Your task to perform on an android device: Go to wifi settings Image 0: 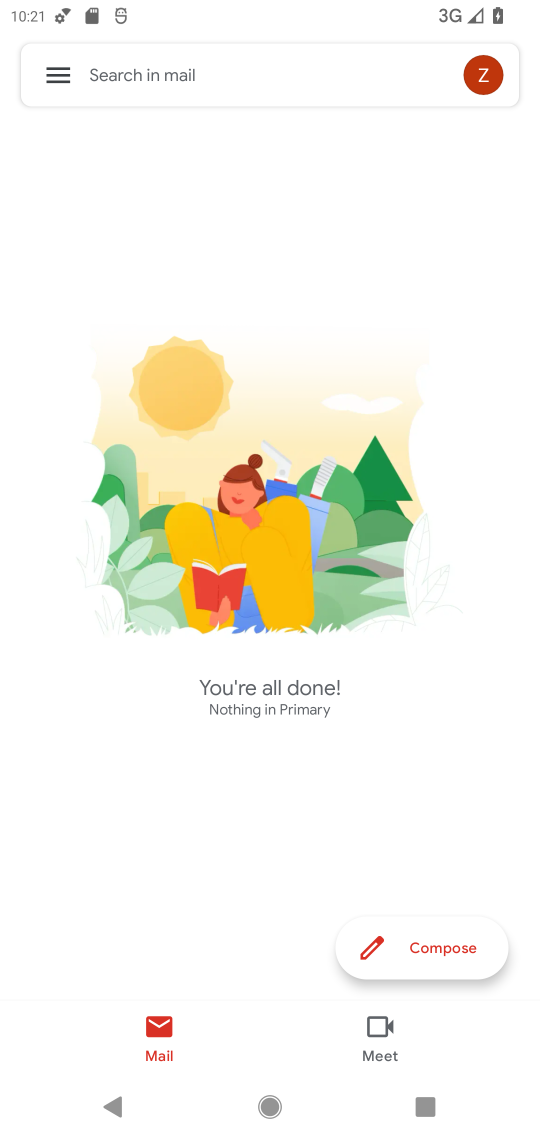
Step 0: drag from (323, 5) to (369, 898)
Your task to perform on an android device: Go to wifi settings Image 1: 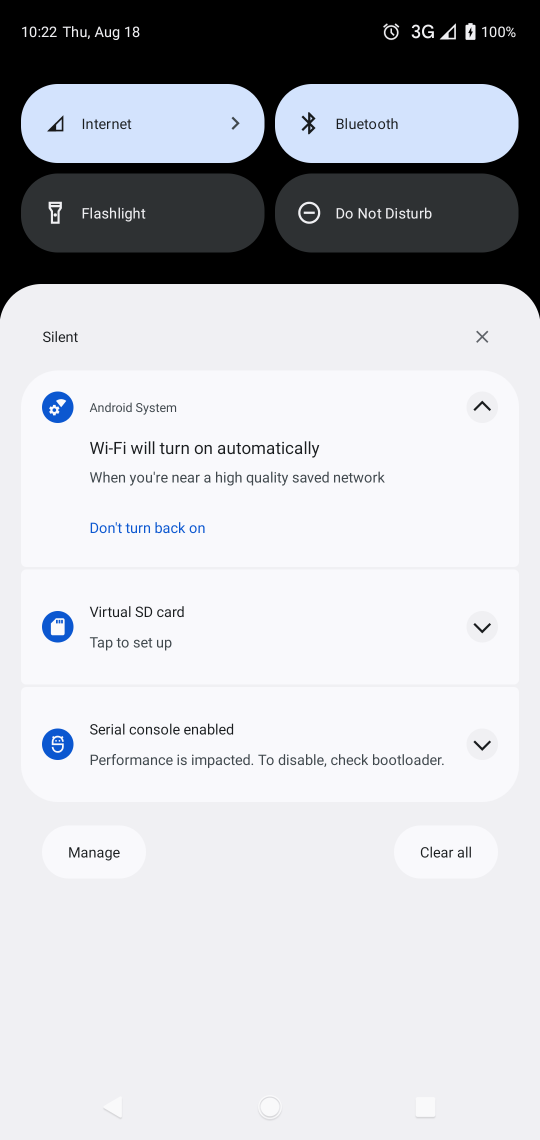
Step 1: click (235, 121)
Your task to perform on an android device: Go to wifi settings Image 2: 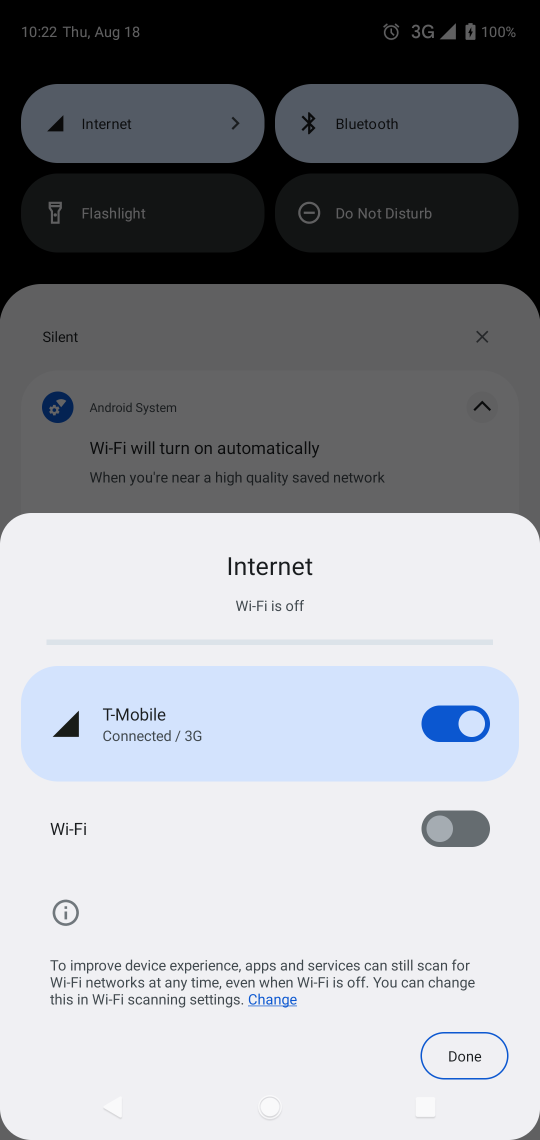
Step 2: click (270, 825)
Your task to perform on an android device: Go to wifi settings Image 3: 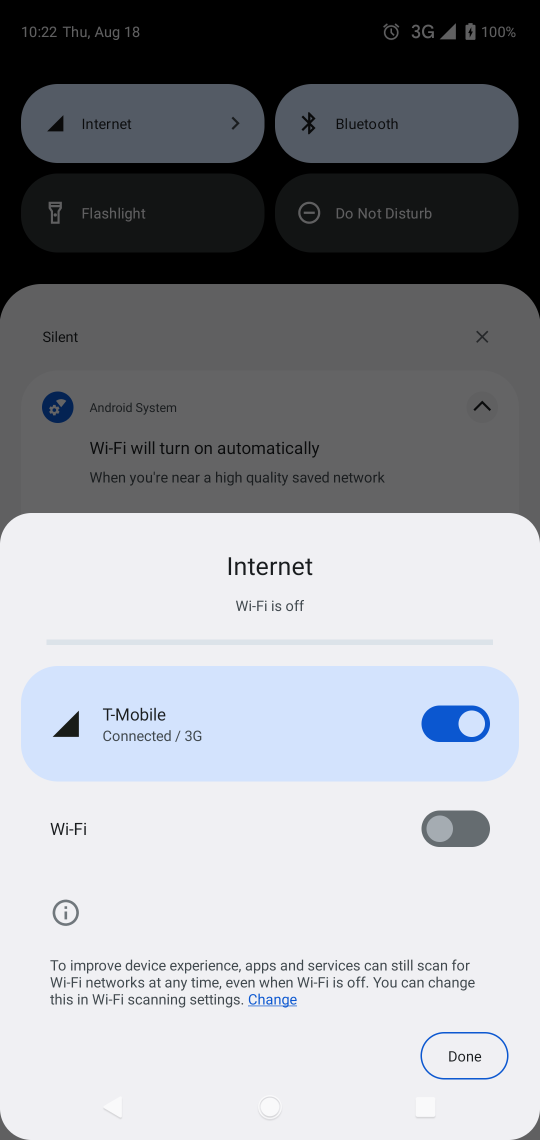
Step 3: click (270, 825)
Your task to perform on an android device: Go to wifi settings Image 4: 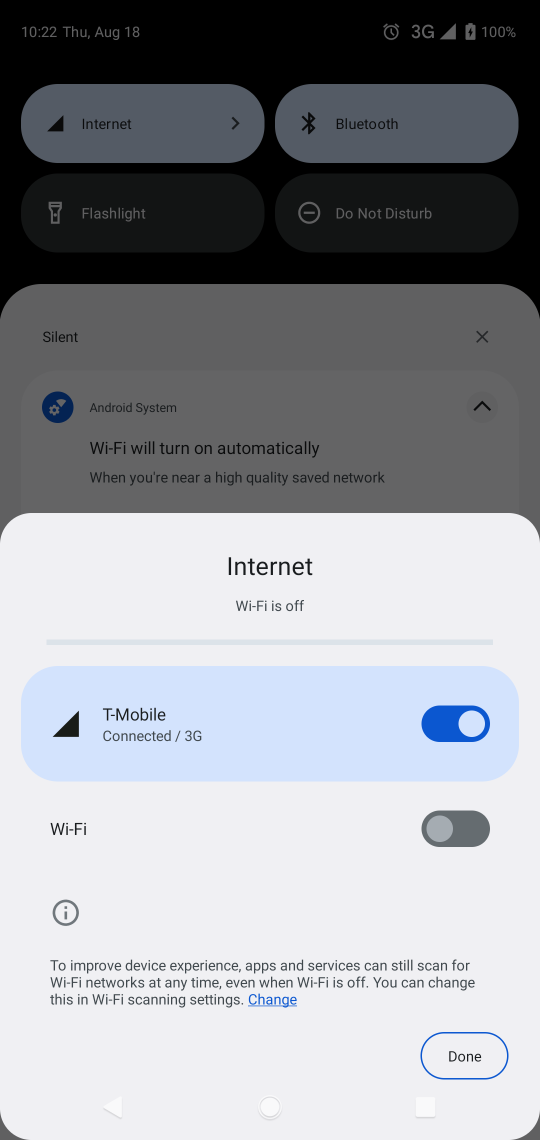
Step 4: click (270, 825)
Your task to perform on an android device: Go to wifi settings Image 5: 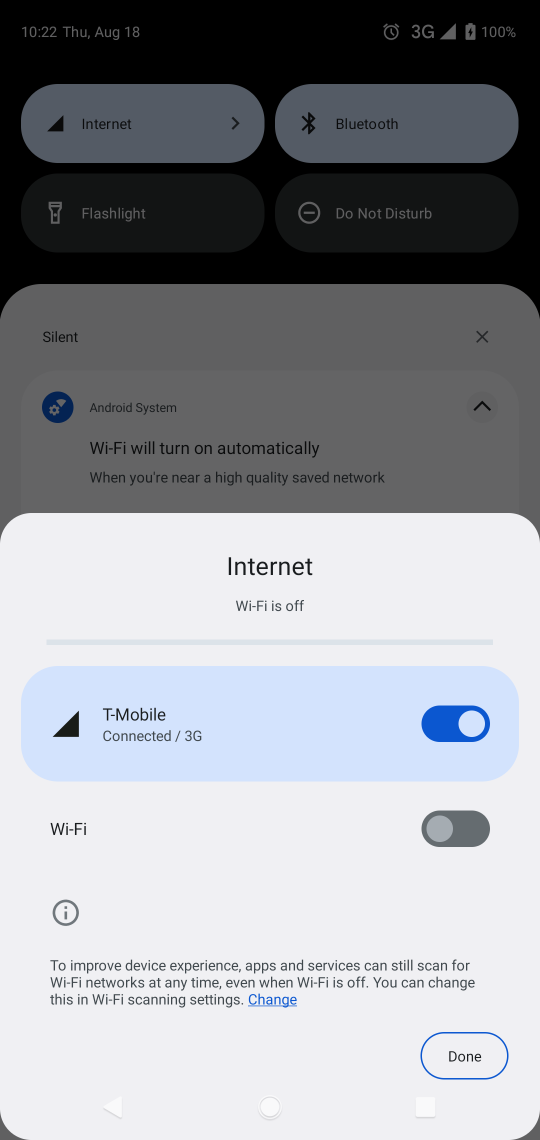
Step 5: click (266, 829)
Your task to perform on an android device: Go to wifi settings Image 6: 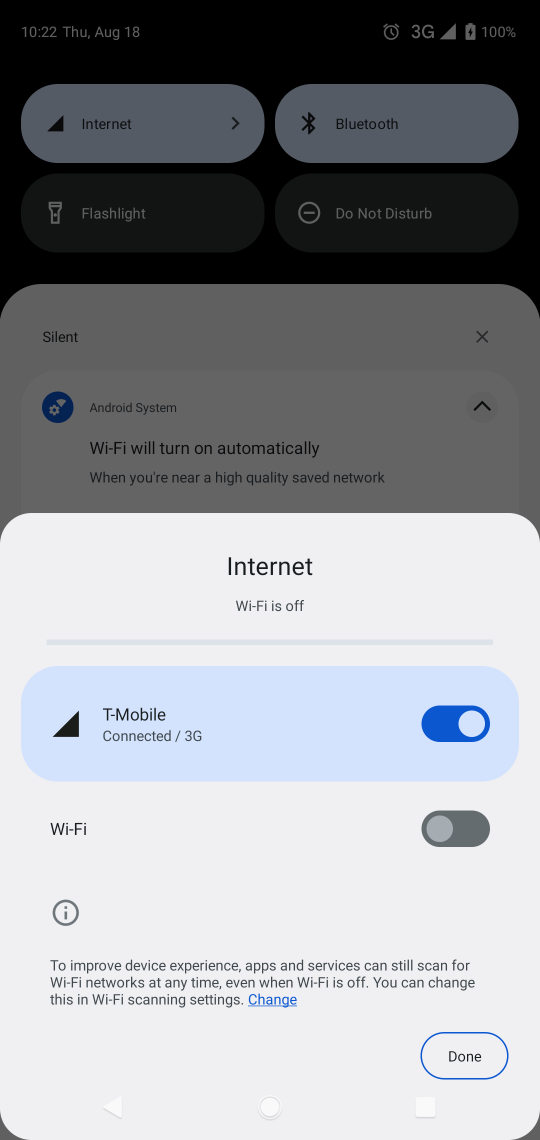
Step 6: click (268, 829)
Your task to perform on an android device: Go to wifi settings Image 7: 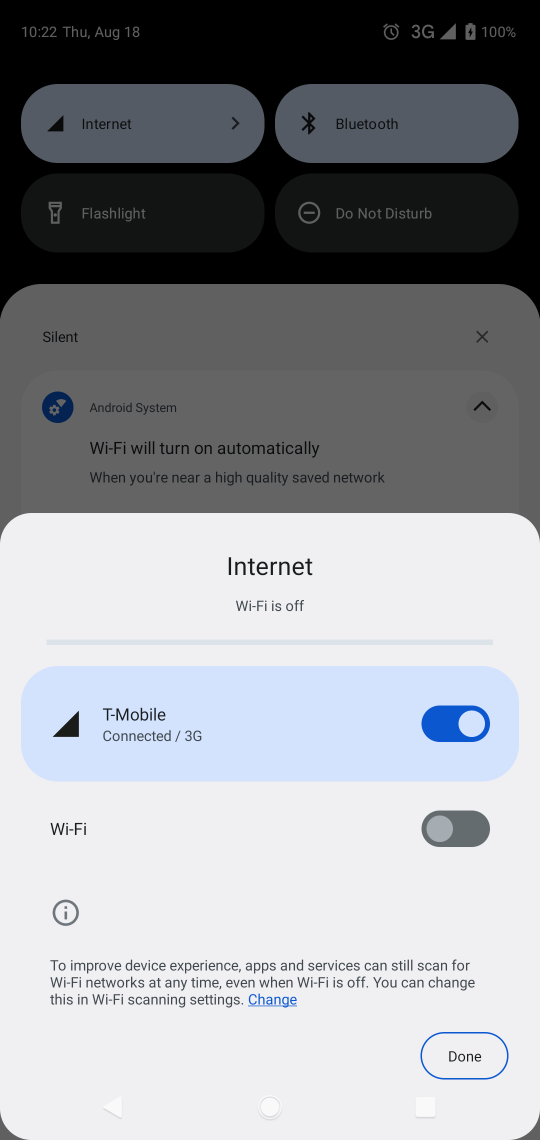
Step 7: click (271, 846)
Your task to perform on an android device: Go to wifi settings Image 8: 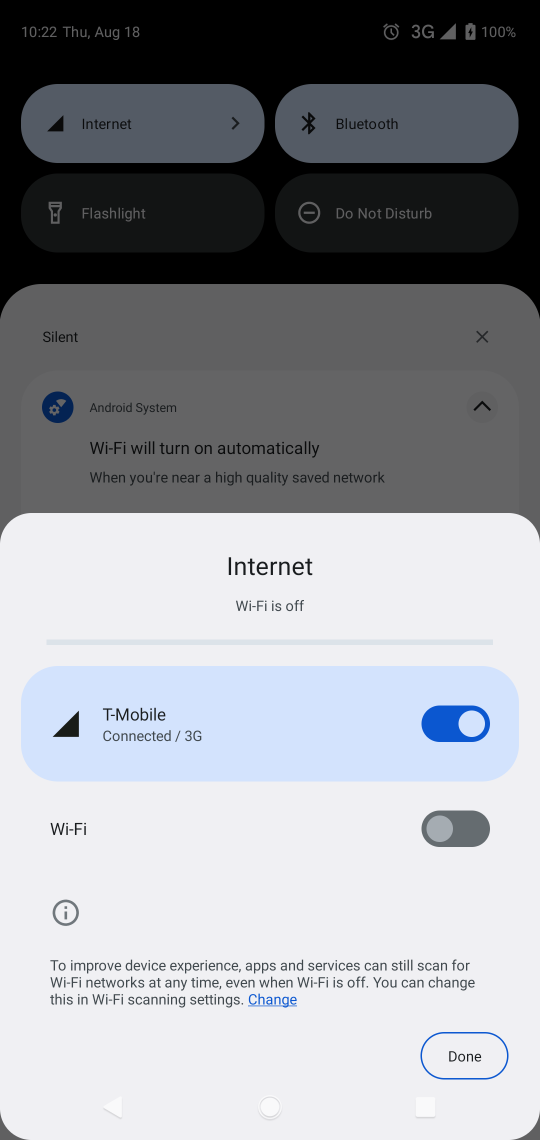
Step 8: click (271, 846)
Your task to perform on an android device: Go to wifi settings Image 9: 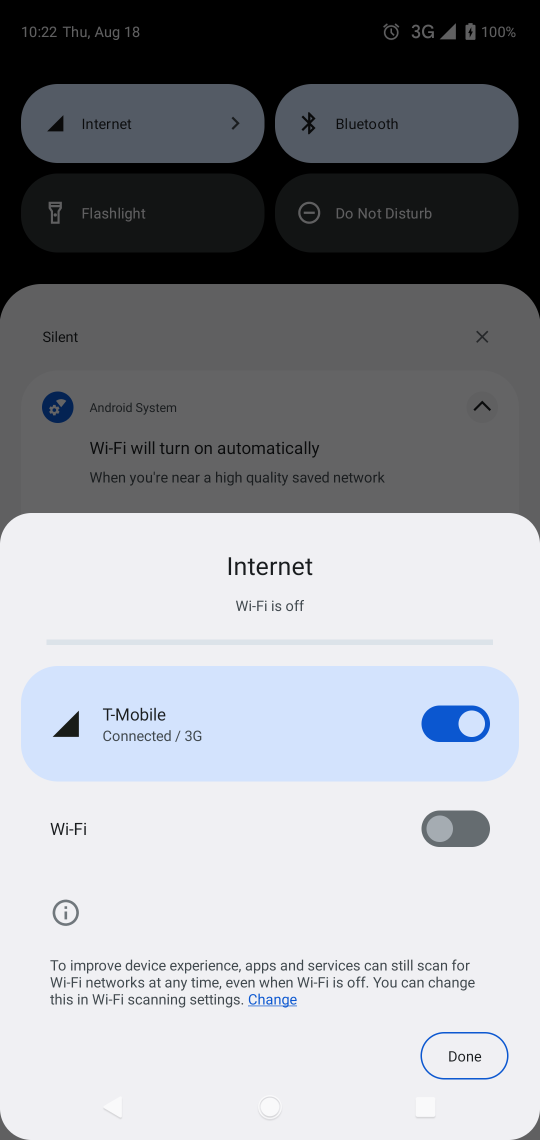
Step 9: click (271, 846)
Your task to perform on an android device: Go to wifi settings Image 10: 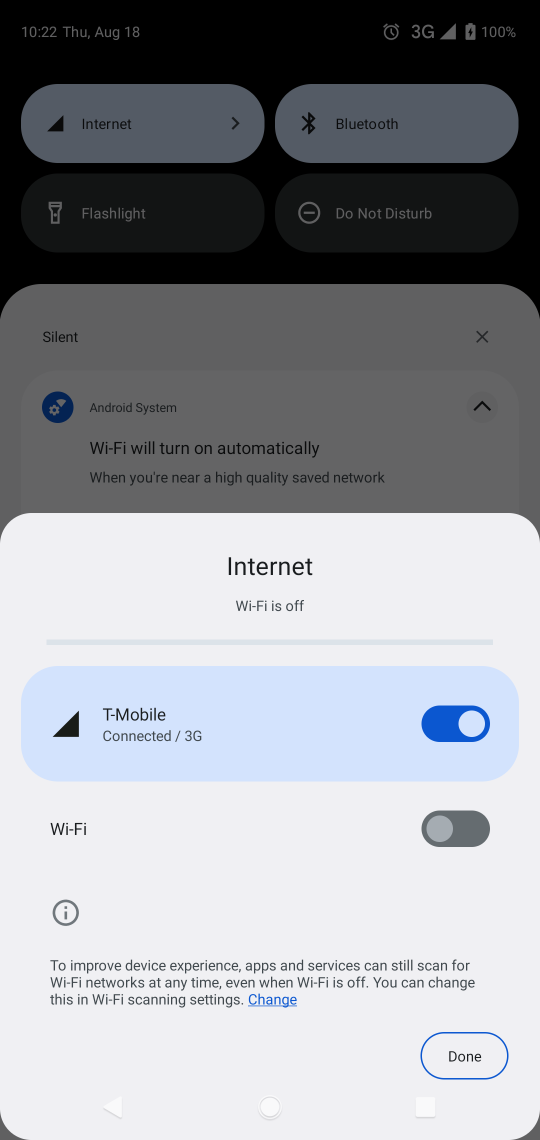
Step 10: click (239, 823)
Your task to perform on an android device: Go to wifi settings Image 11: 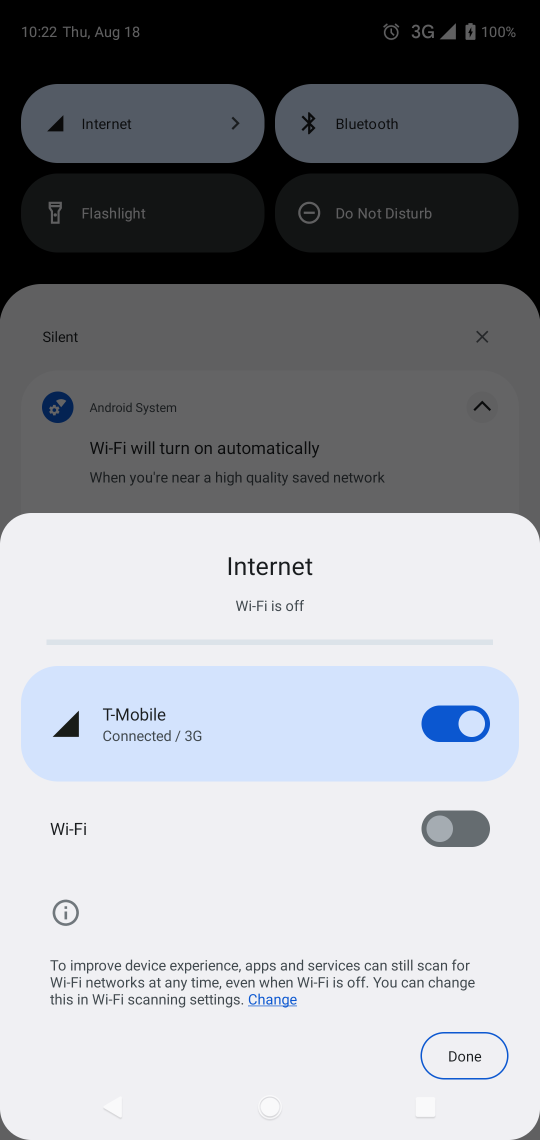
Step 11: click (239, 823)
Your task to perform on an android device: Go to wifi settings Image 12: 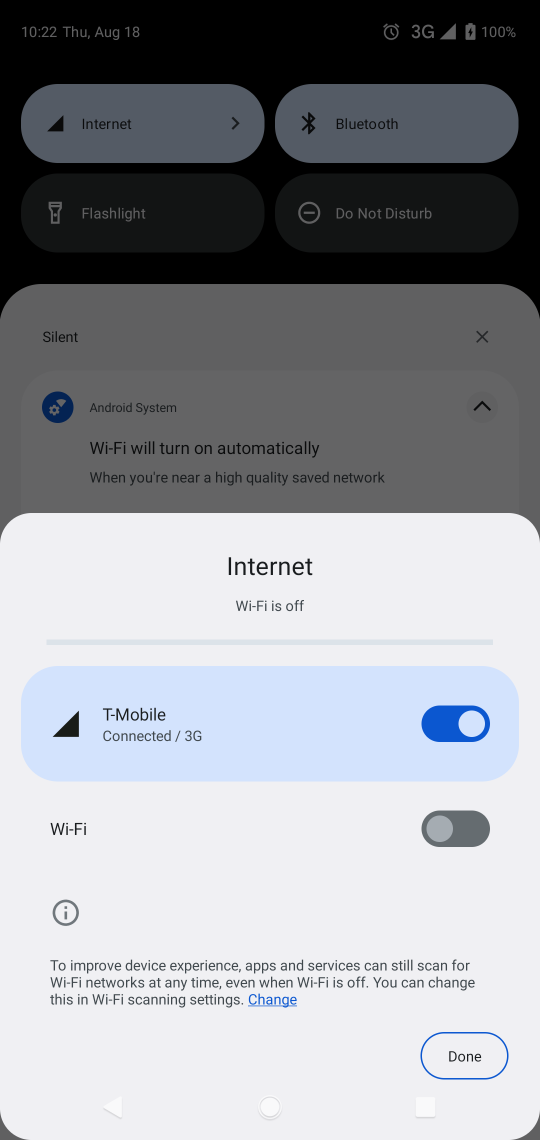
Step 12: click (239, 823)
Your task to perform on an android device: Go to wifi settings Image 13: 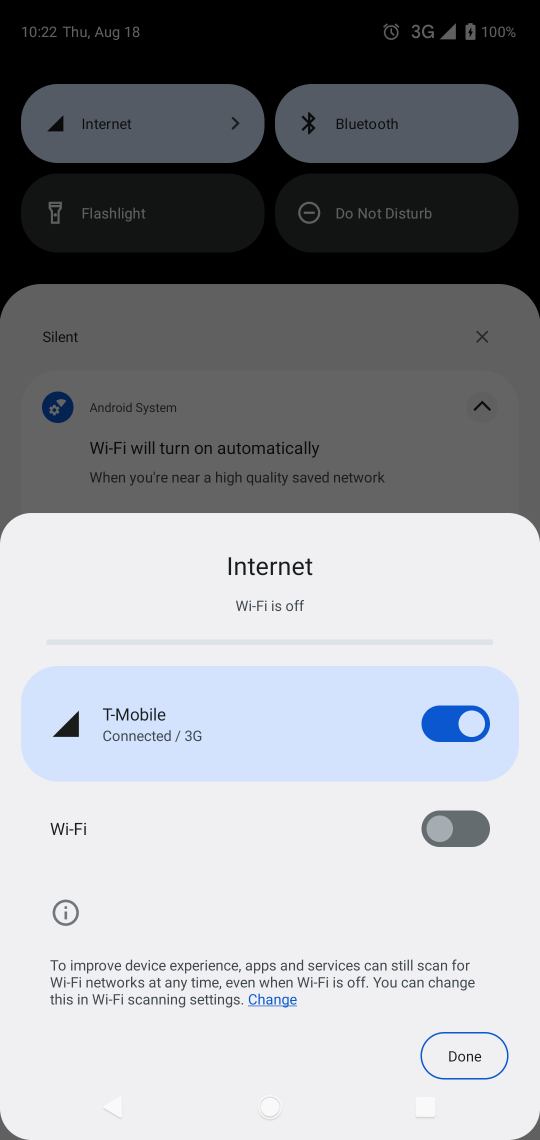
Step 13: click (232, 736)
Your task to perform on an android device: Go to wifi settings Image 14: 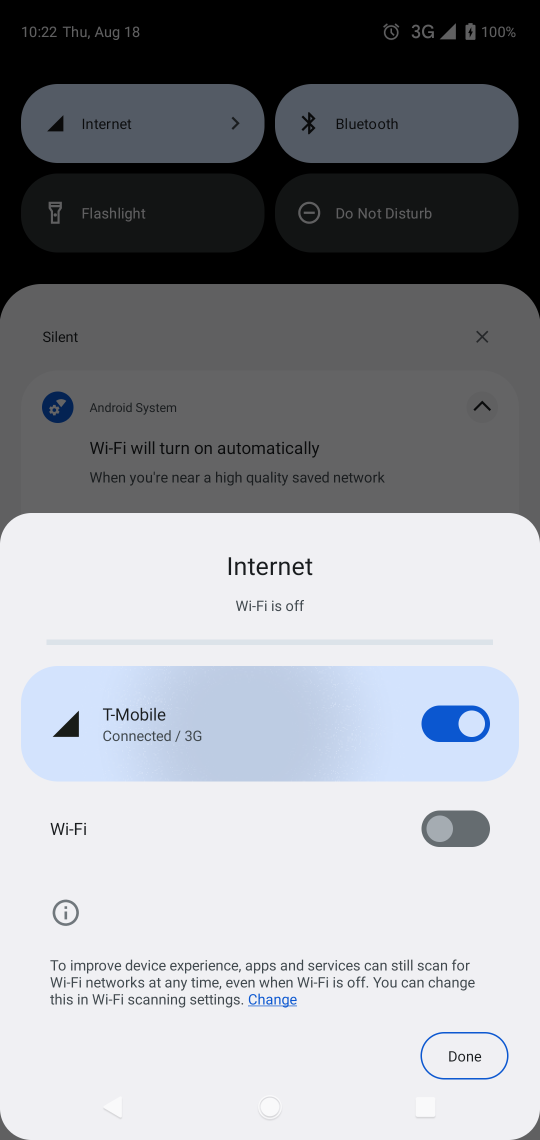
Step 14: click (232, 736)
Your task to perform on an android device: Go to wifi settings Image 15: 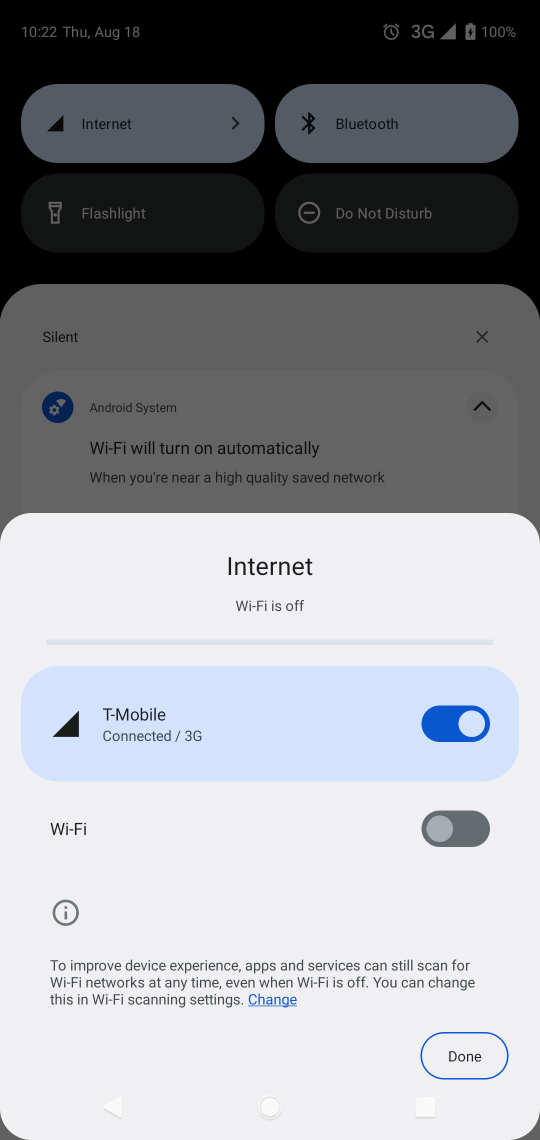
Step 15: click (232, 736)
Your task to perform on an android device: Go to wifi settings Image 16: 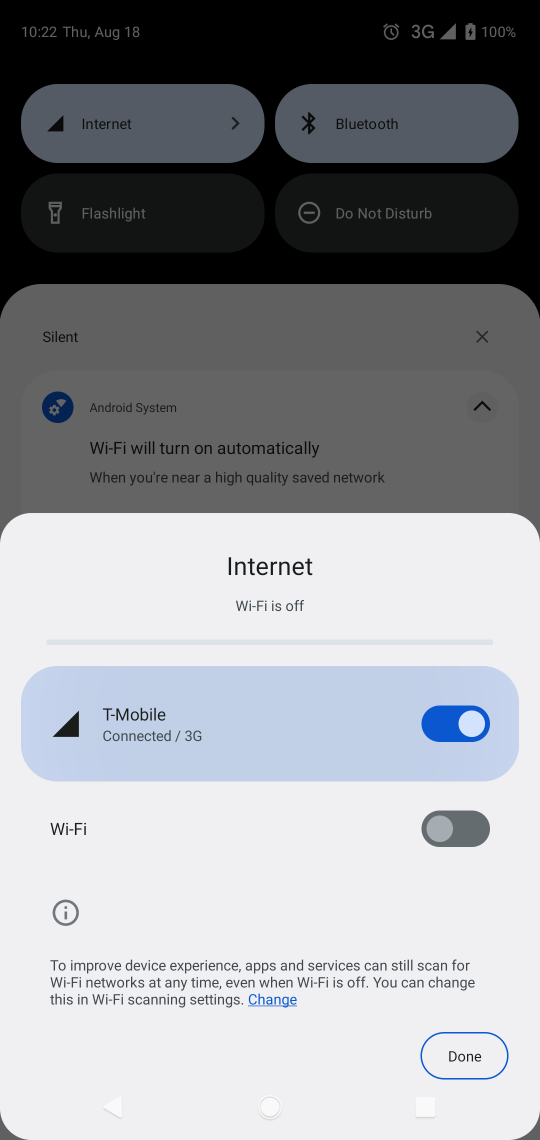
Step 16: click (232, 736)
Your task to perform on an android device: Go to wifi settings Image 17: 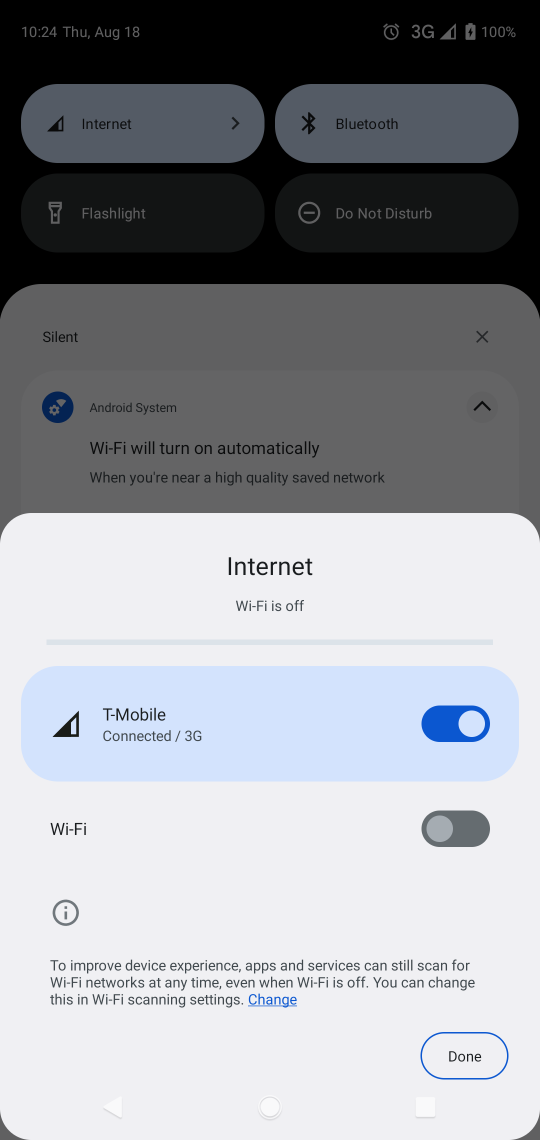
Step 17: task complete